Your task to perform on an android device: Search for Italian restaurants on Maps Image 0: 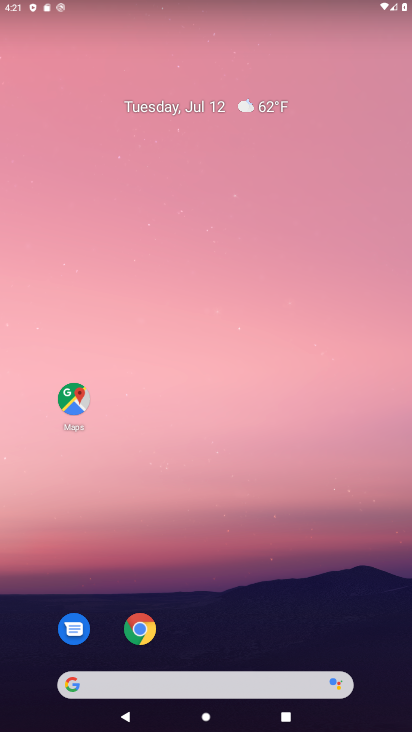
Step 0: click (76, 416)
Your task to perform on an android device: Search for Italian restaurants on Maps Image 1: 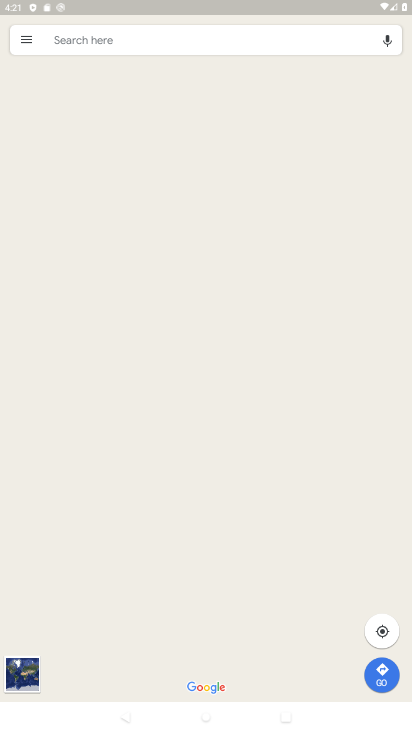
Step 1: click (162, 49)
Your task to perform on an android device: Search for Italian restaurants on Maps Image 2: 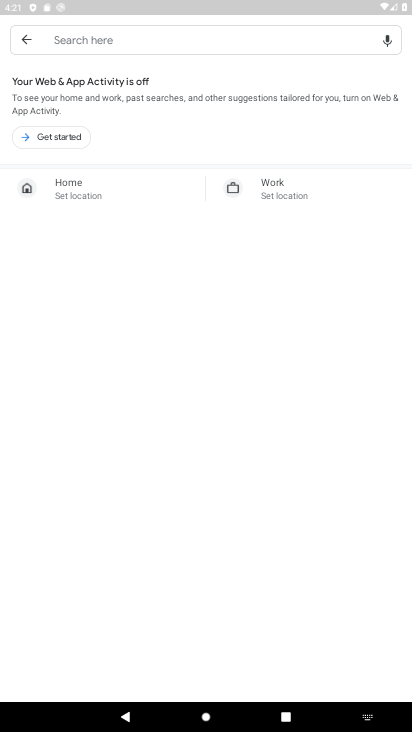
Step 2: click (47, 136)
Your task to perform on an android device: Search for Italian restaurants on Maps Image 3: 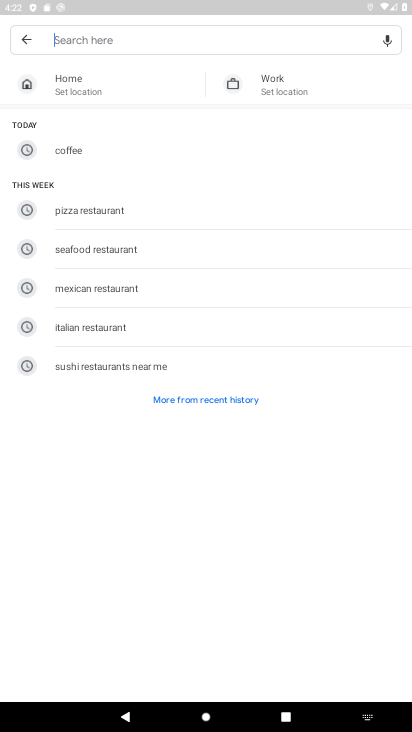
Step 3: click (89, 319)
Your task to perform on an android device: Search for Italian restaurants on Maps Image 4: 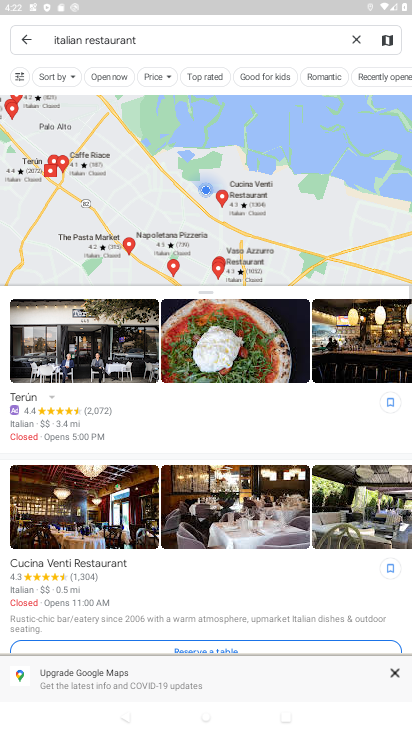
Step 4: task complete